Your task to perform on an android device: Open Youtube and go to "Your channel" Image 0: 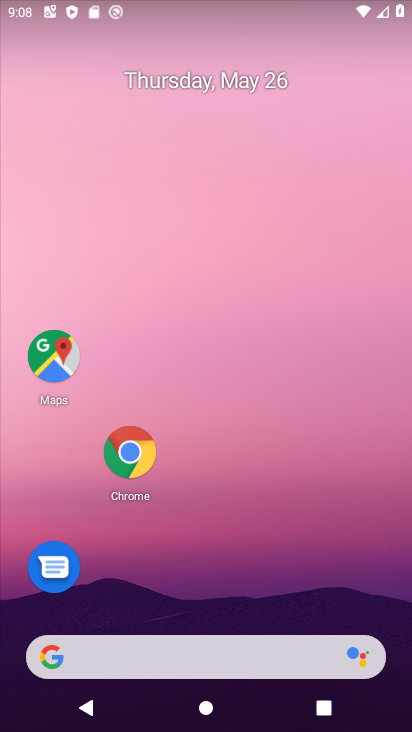
Step 0: press home button
Your task to perform on an android device: Open Youtube and go to "Your channel" Image 1: 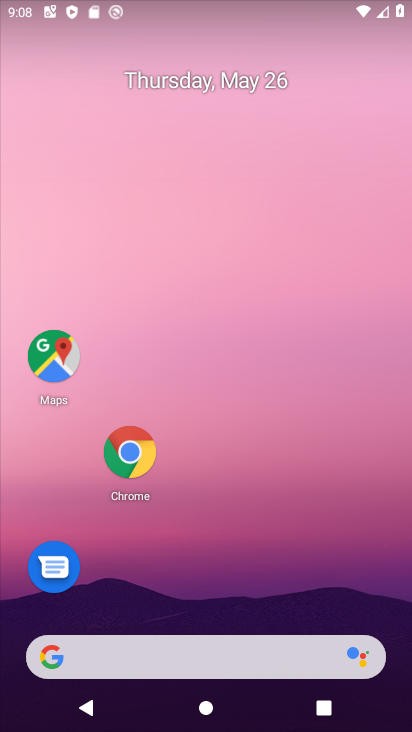
Step 1: drag from (180, 663) to (326, 151)
Your task to perform on an android device: Open Youtube and go to "Your channel" Image 2: 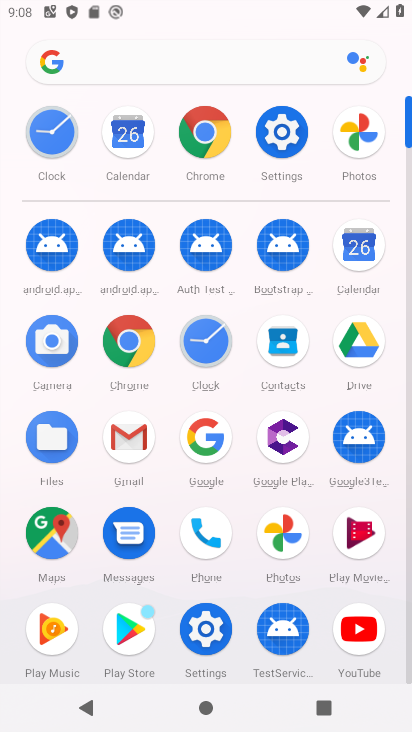
Step 2: click (366, 640)
Your task to perform on an android device: Open Youtube and go to "Your channel" Image 3: 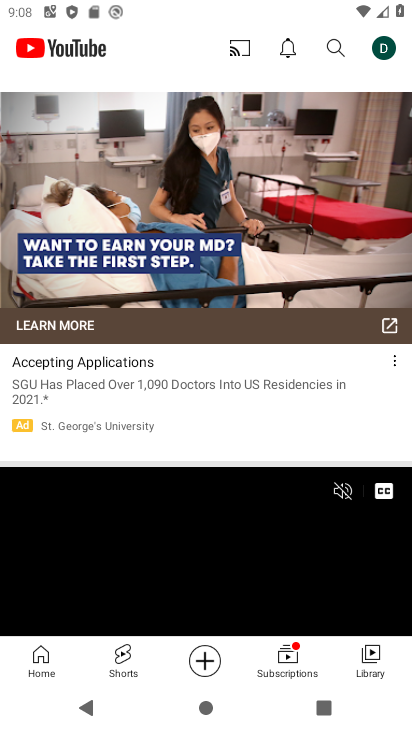
Step 3: click (381, 47)
Your task to perform on an android device: Open Youtube and go to "Your channel" Image 4: 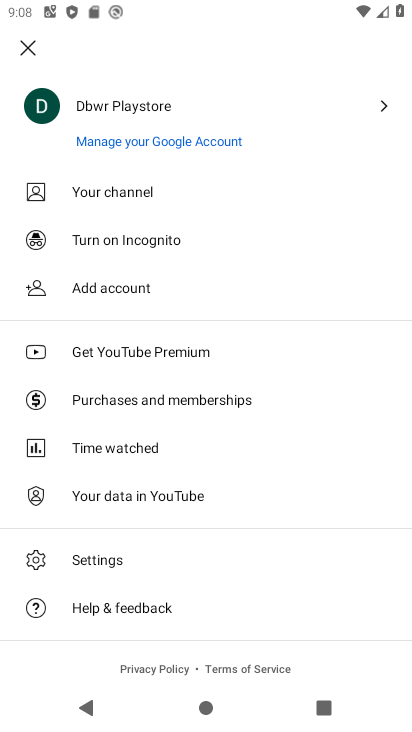
Step 4: click (97, 193)
Your task to perform on an android device: Open Youtube and go to "Your channel" Image 5: 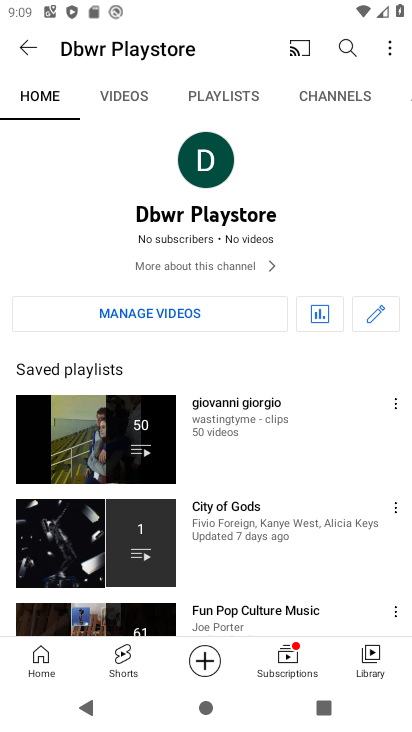
Step 5: task complete